Your task to perform on an android device: What's on my calendar tomorrow? Image 0: 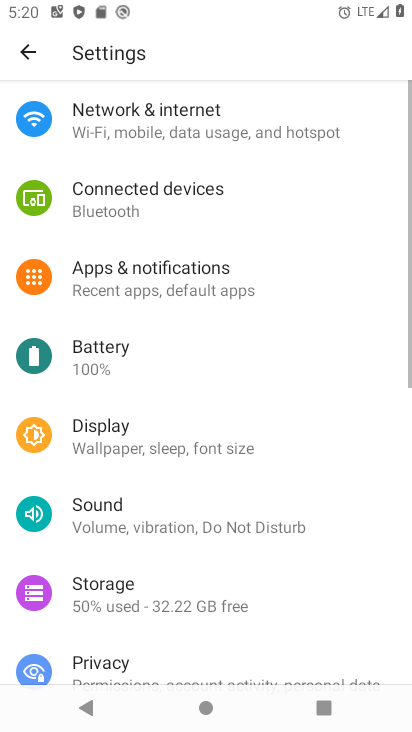
Step 0: press home button
Your task to perform on an android device: What's on my calendar tomorrow? Image 1: 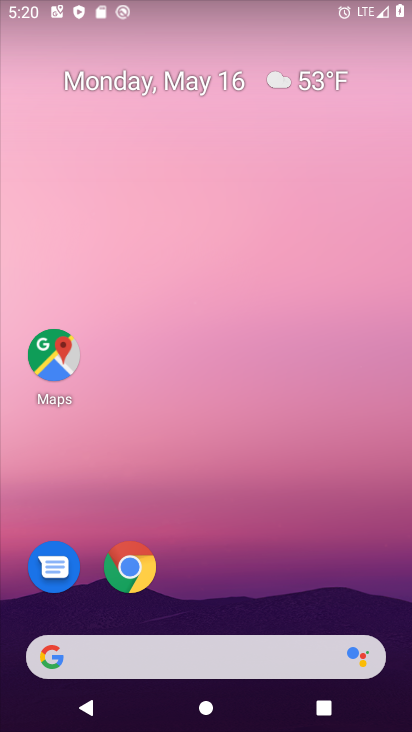
Step 1: drag from (346, 634) to (309, 53)
Your task to perform on an android device: What's on my calendar tomorrow? Image 2: 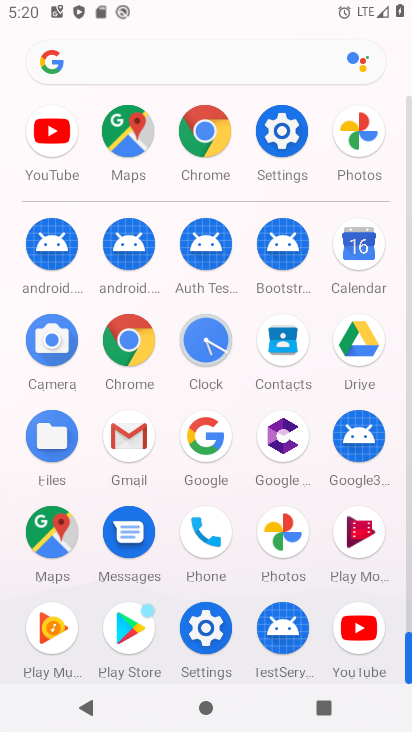
Step 2: click (356, 246)
Your task to perform on an android device: What's on my calendar tomorrow? Image 3: 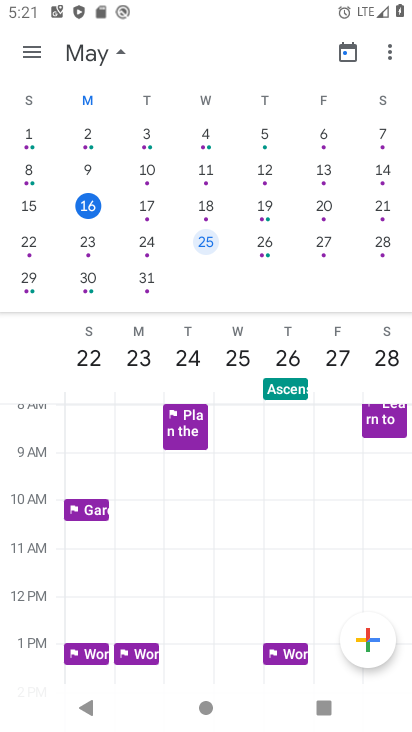
Step 3: drag from (380, 191) to (173, 269)
Your task to perform on an android device: What's on my calendar tomorrow? Image 4: 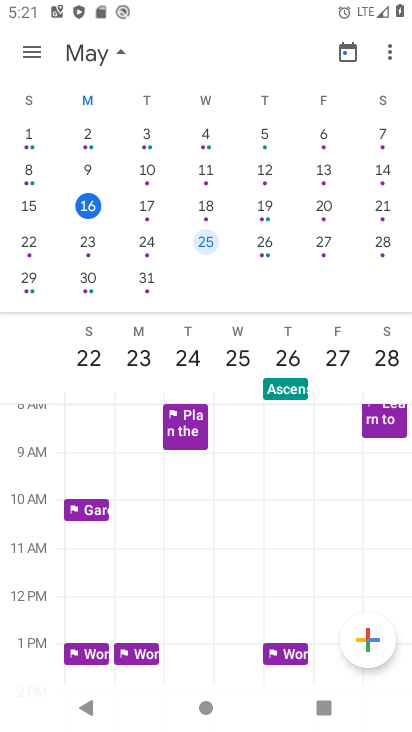
Step 4: click (153, 206)
Your task to perform on an android device: What's on my calendar tomorrow? Image 5: 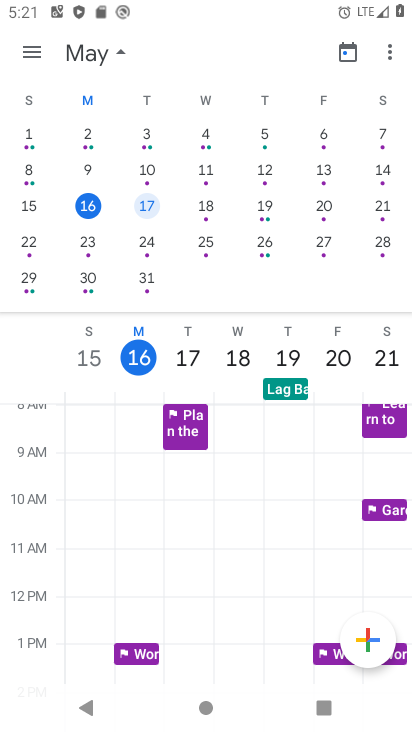
Step 5: task complete